Your task to perform on an android device: allow cookies in the chrome app Image 0: 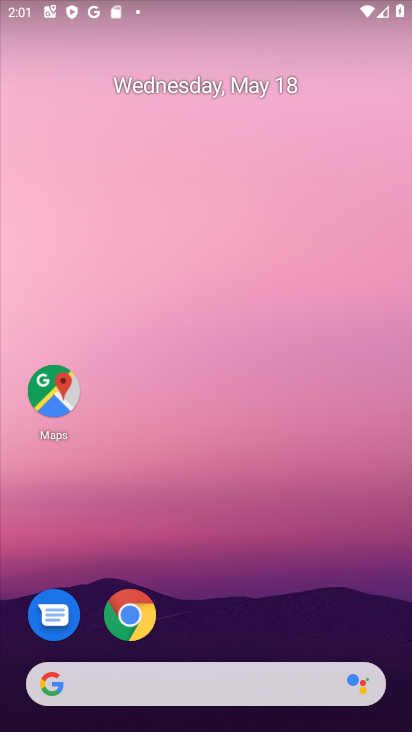
Step 0: click (144, 606)
Your task to perform on an android device: allow cookies in the chrome app Image 1: 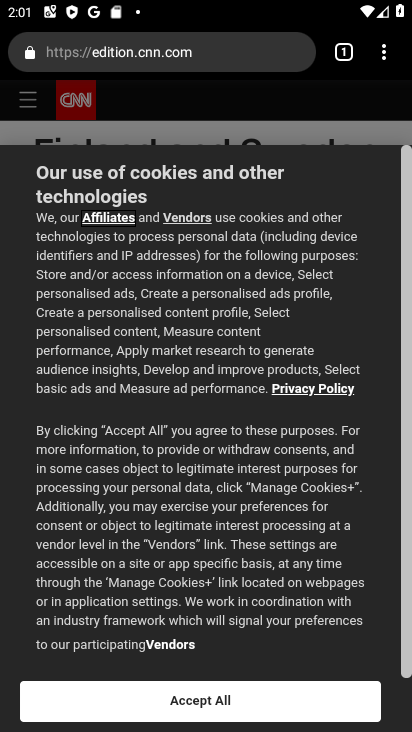
Step 1: click (378, 67)
Your task to perform on an android device: allow cookies in the chrome app Image 2: 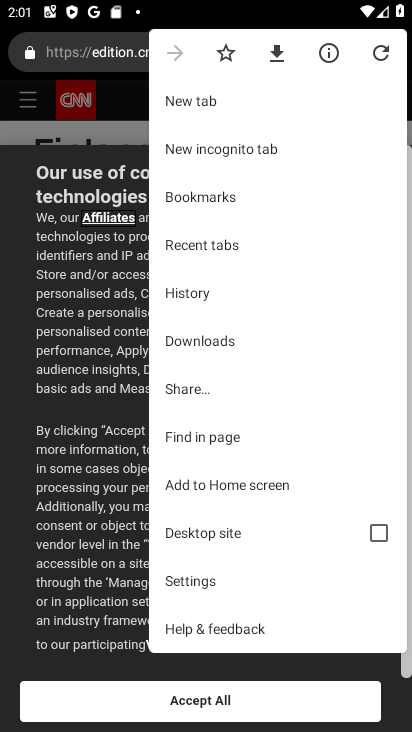
Step 2: click (254, 575)
Your task to perform on an android device: allow cookies in the chrome app Image 3: 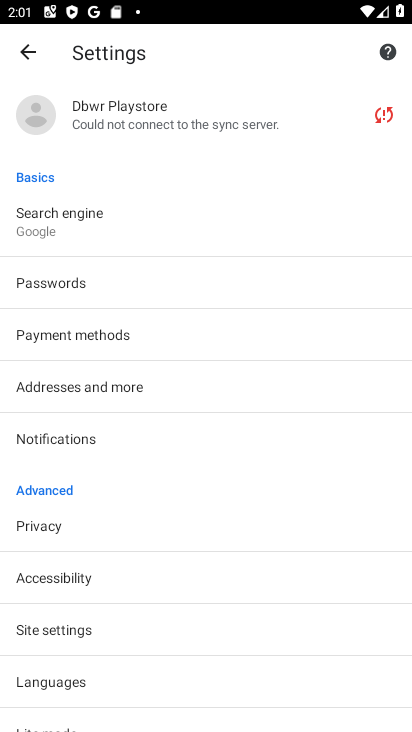
Step 3: click (242, 643)
Your task to perform on an android device: allow cookies in the chrome app Image 4: 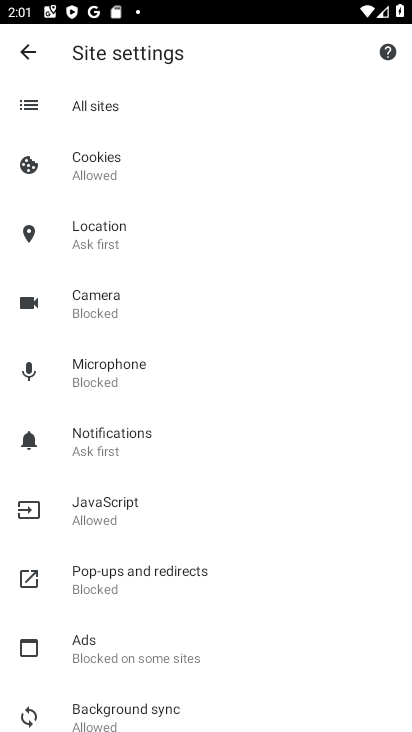
Step 4: click (256, 157)
Your task to perform on an android device: allow cookies in the chrome app Image 5: 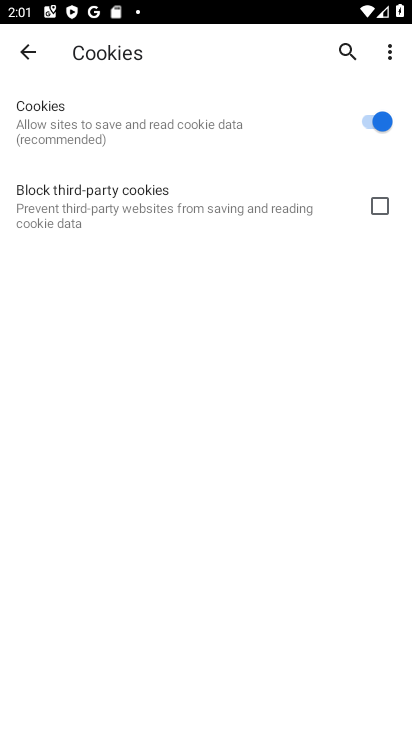
Step 5: task complete